Your task to perform on an android device: turn on javascript in the chrome app Image 0: 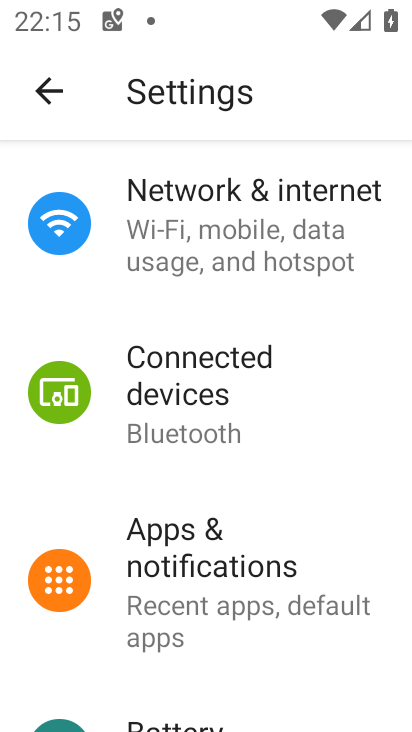
Step 0: press home button
Your task to perform on an android device: turn on javascript in the chrome app Image 1: 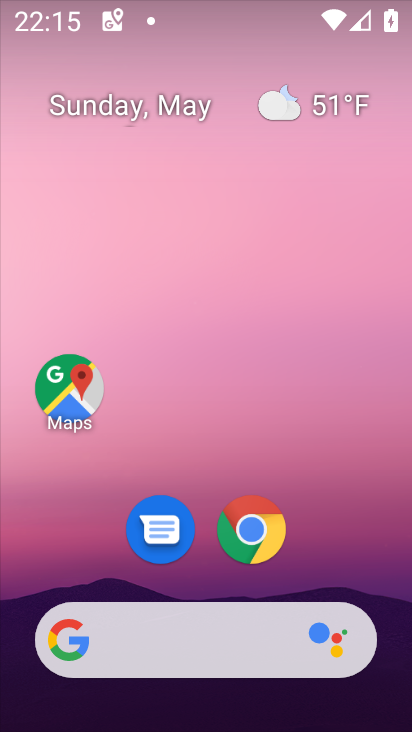
Step 1: drag from (167, 679) to (199, 150)
Your task to perform on an android device: turn on javascript in the chrome app Image 2: 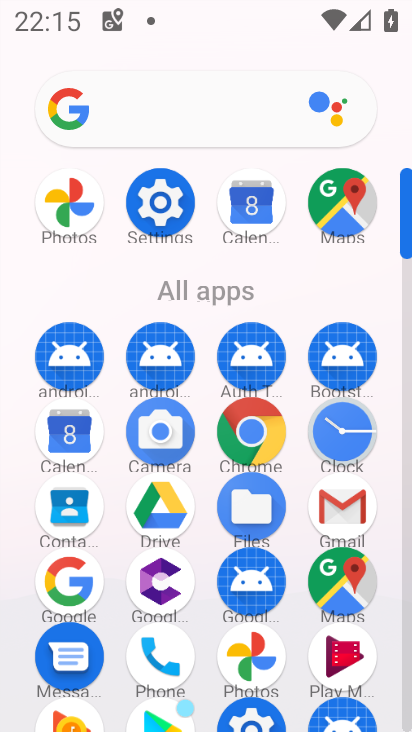
Step 2: click (261, 431)
Your task to perform on an android device: turn on javascript in the chrome app Image 3: 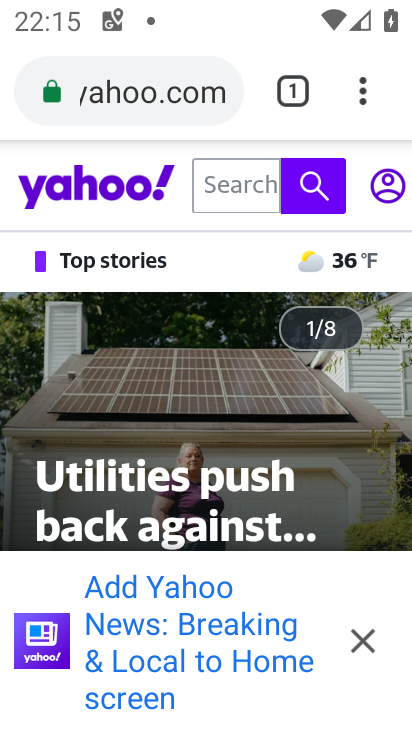
Step 3: drag from (362, 84) to (207, 566)
Your task to perform on an android device: turn on javascript in the chrome app Image 4: 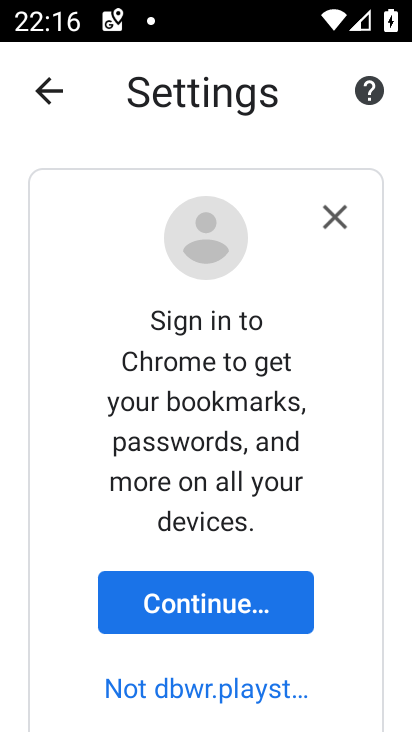
Step 4: drag from (195, 675) to (192, 110)
Your task to perform on an android device: turn on javascript in the chrome app Image 5: 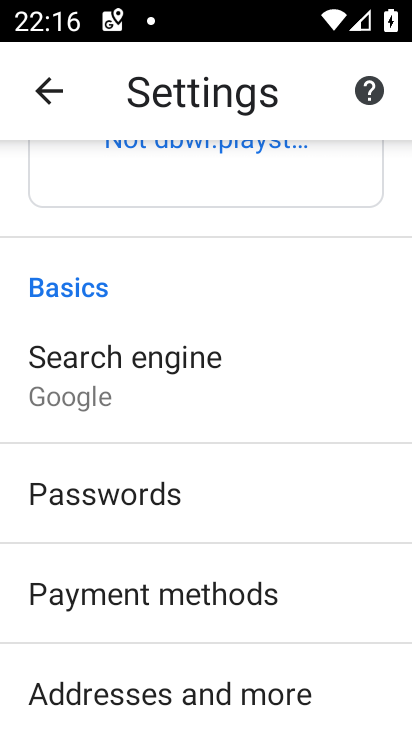
Step 5: drag from (249, 695) to (263, 108)
Your task to perform on an android device: turn on javascript in the chrome app Image 6: 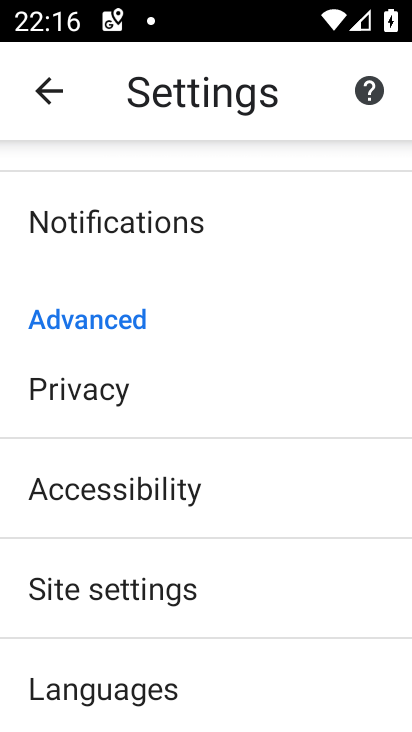
Step 6: click (196, 602)
Your task to perform on an android device: turn on javascript in the chrome app Image 7: 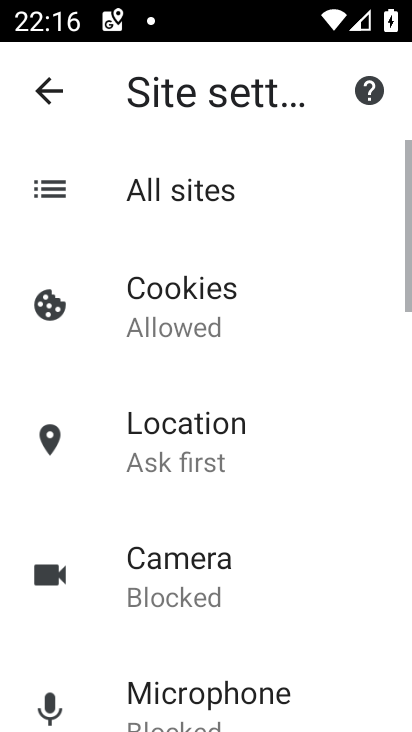
Step 7: drag from (202, 668) to (215, 202)
Your task to perform on an android device: turn on javascript in the chrome app Image 8: 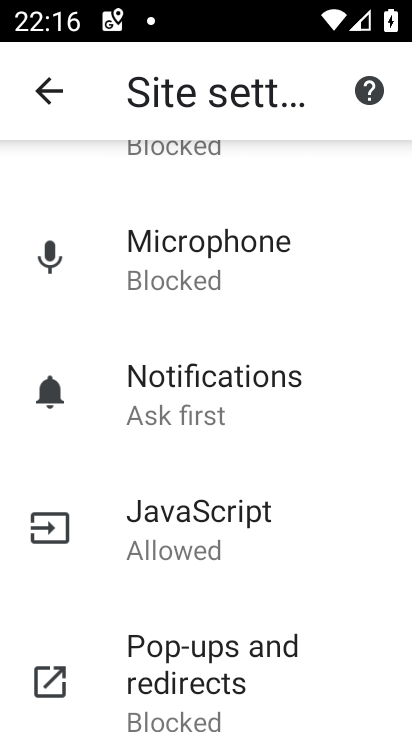
Step 8: click (273, 519)
Your task to perform on an android device: turn on javascript in the chrome app Image 9: 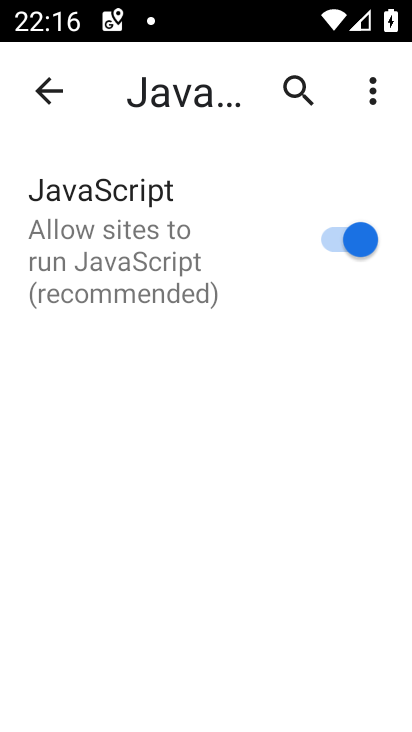
Step 9: task complete